Your task to perform on an android device: see tabs open on other devices in the chrome app Image 0: 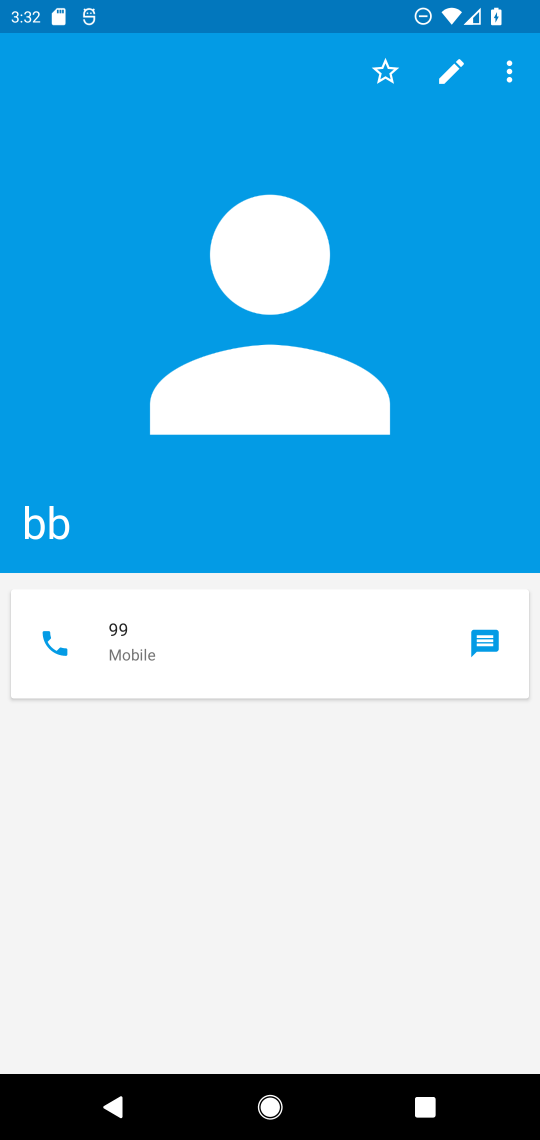
Step 0: press home button
Your task to perform on an android device: see tabs open on other devices in the chrome app Image 1: 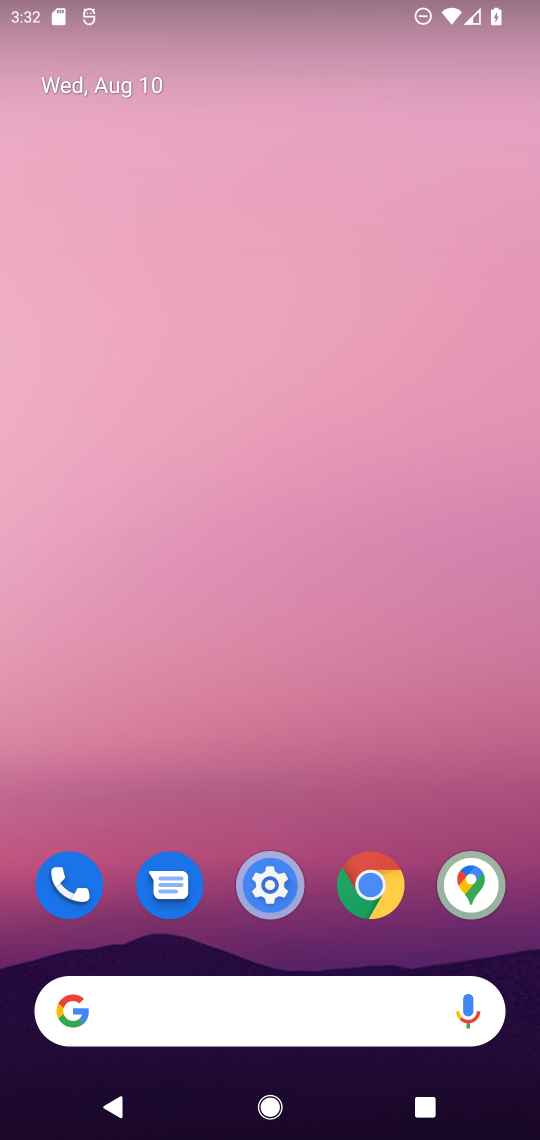
Step 1: click (383, 886)
Your task to perform on an android device: see tabs open on other devices in the chrome app Image 2: 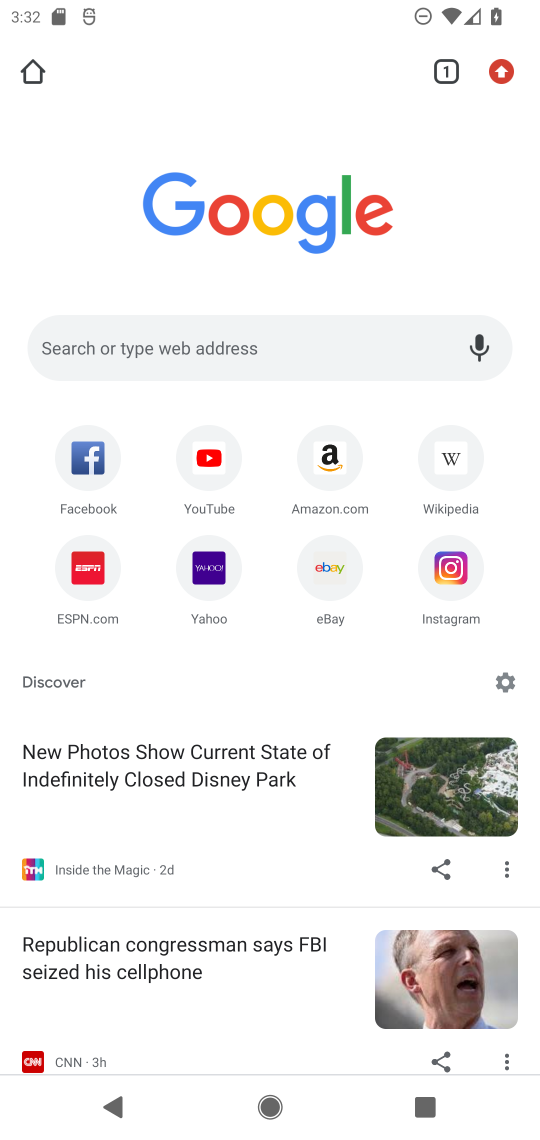
Step 2: click (501, 60)
Your task to perform on an android device: see tabs open on other devices in the chrome app Image 3: 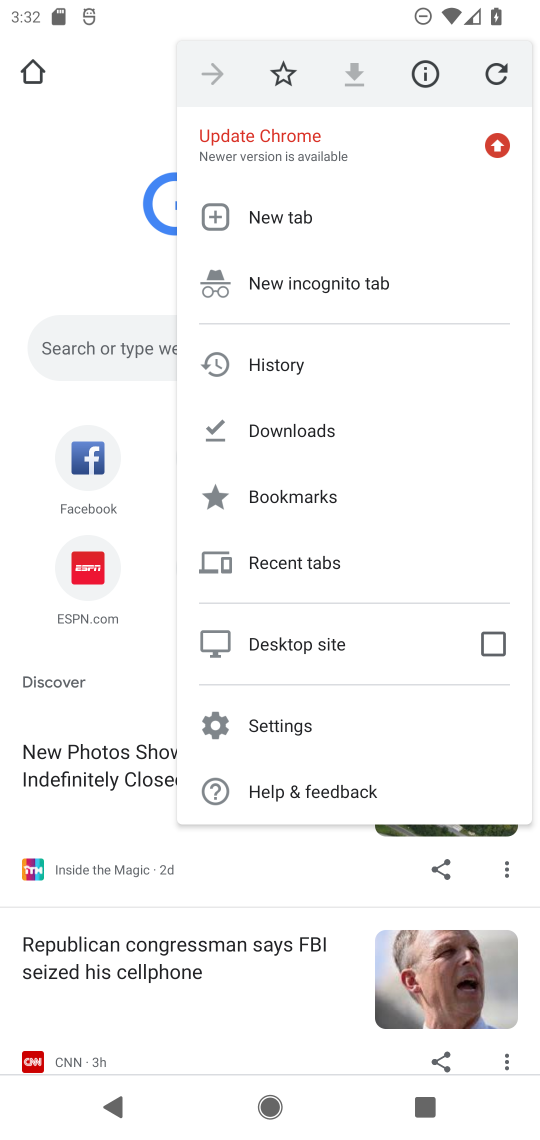
Step 3: click (301, 560)
Your task to perform on an android device: see tabs open on other devices in the chrome app Image 4: 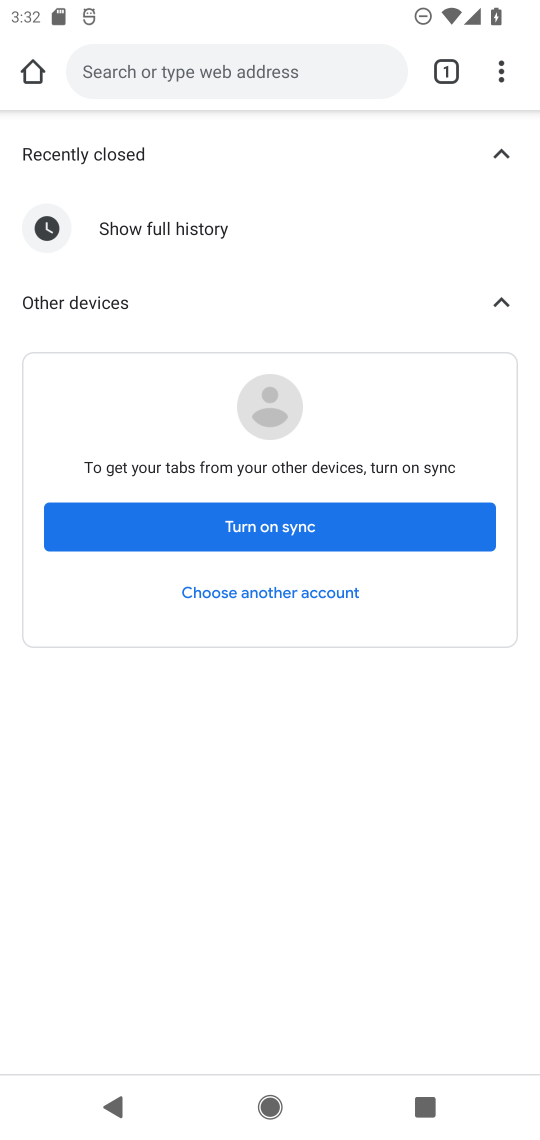
Step 4: task complete